Your task to perform on an android device: Show me popular videos on Youtube Image 0: 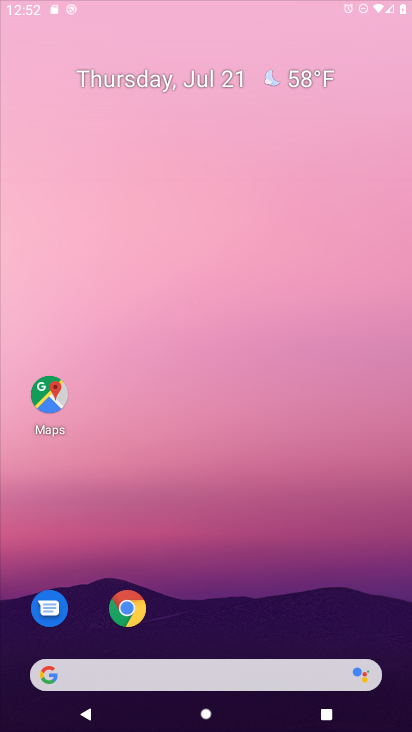
Step 0: press home button
Your task to perform on an android device: Show me popular videos on Youtube Image 1: 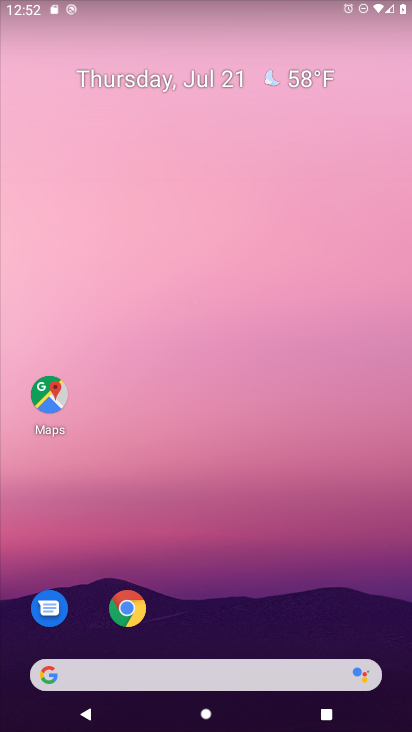
Step 1: drag from (243, 627) to (164, 5)
Your task to perform on an android device: Show me popular videos on Youtube Image 2: 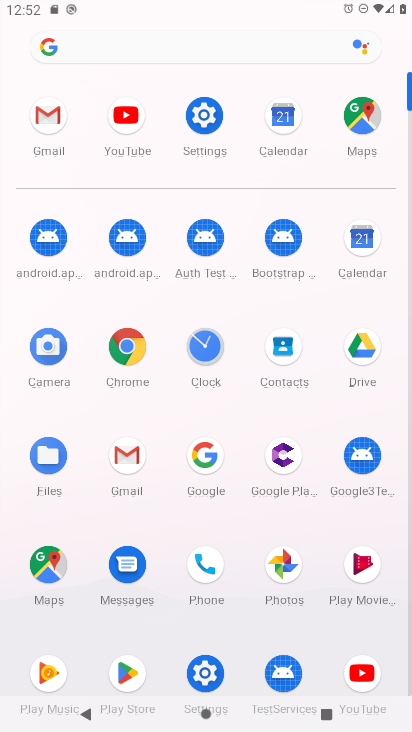
Step 2: click (351, 674)
Your task to perform on an android device: Show me popular videos on Youtube Image 3: 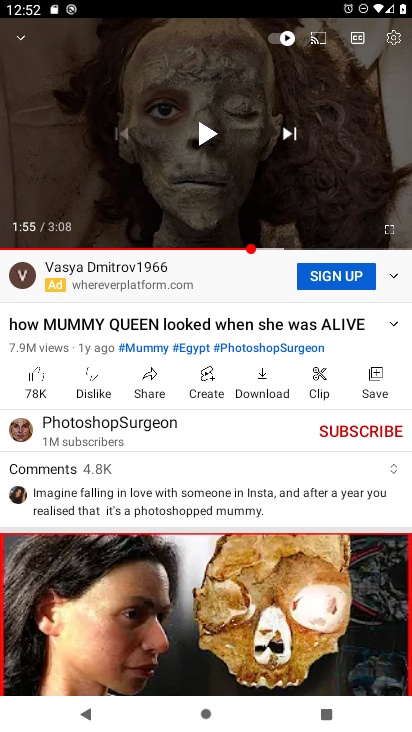
Step 3: drag from (287, 619) to (357, 14)
Your task to perform on an android device: Show me popular videos on Youtube Image 4: 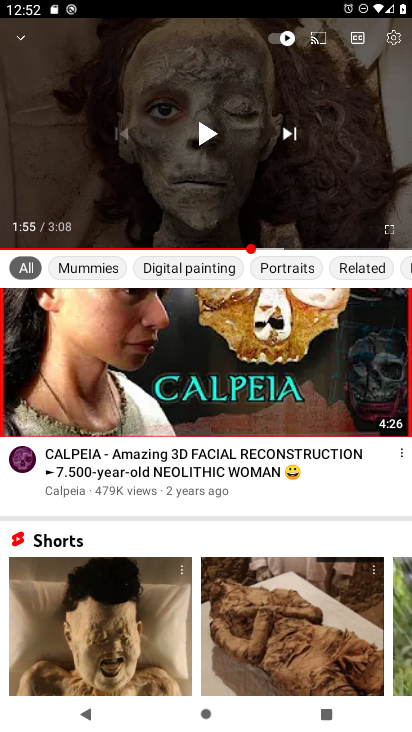
Step 4: press back button
Your task to perform on an android device: Show me popular videos on Youtube Image 5: 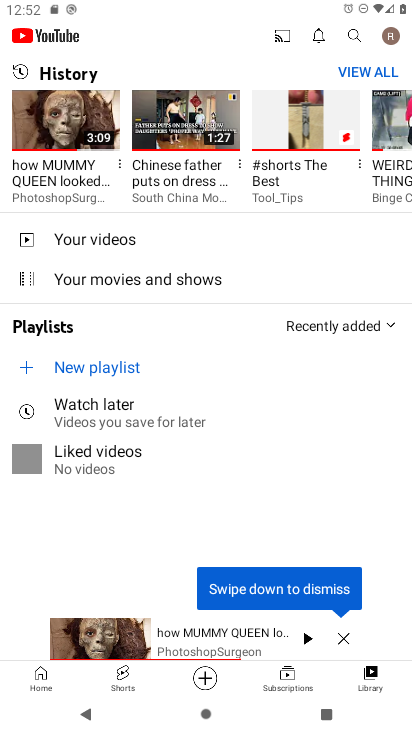
Step 5: click (32, 674)
Your task to perform on an android device: Show me popular videos on Youtube Image 6: 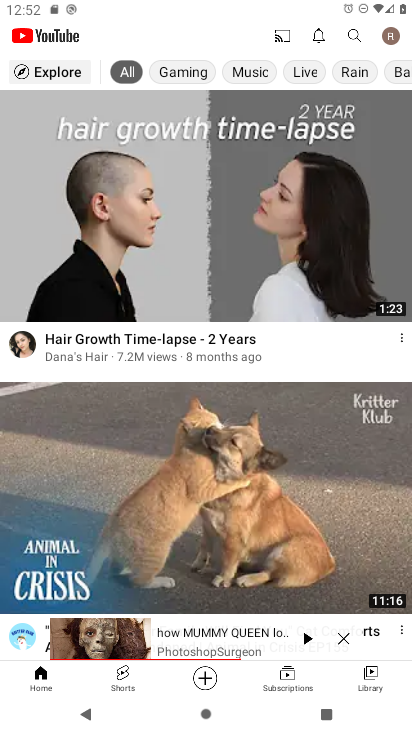
Step 6: click (65, 72)
Your task to perform on an android device: Show me popular videos on Youtube Image 7: 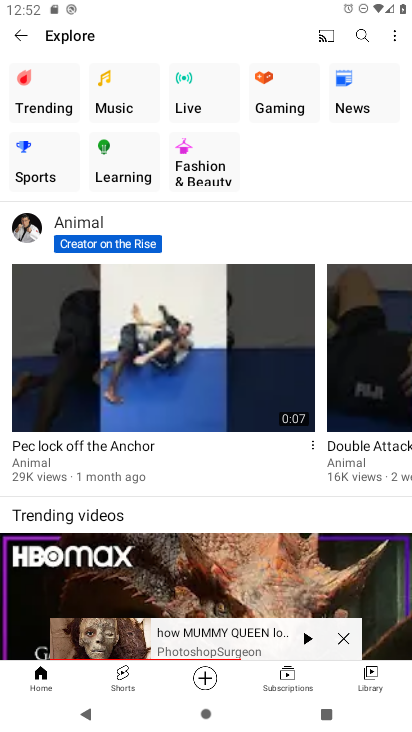
Step 7: click (33, 105)
Your task to perform on an android device: Show me popular videos on Youtube Image 8: 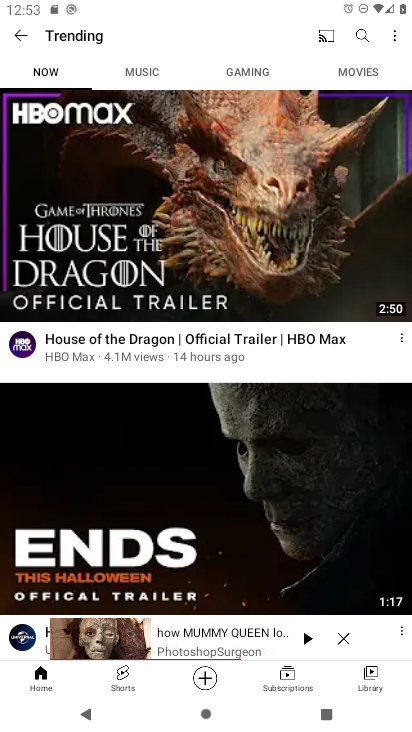
Step 8: task complete